Your task to perform on an android device: change keyboard looks Image 0: 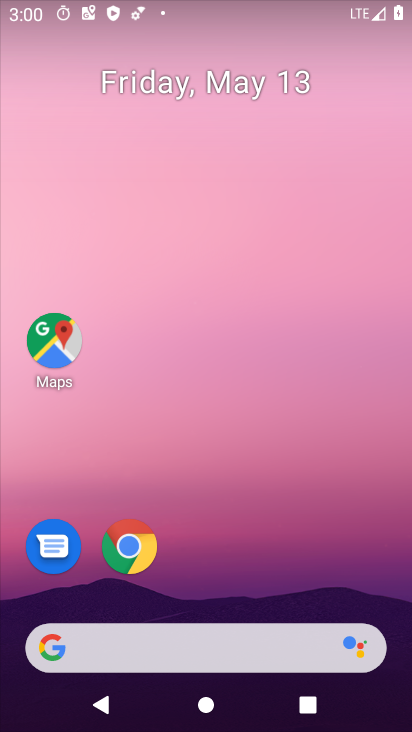
Step 0: drag from (243, 567) to (289, 37)
Your task to perform on an android device: change keyboard looks Image 1: 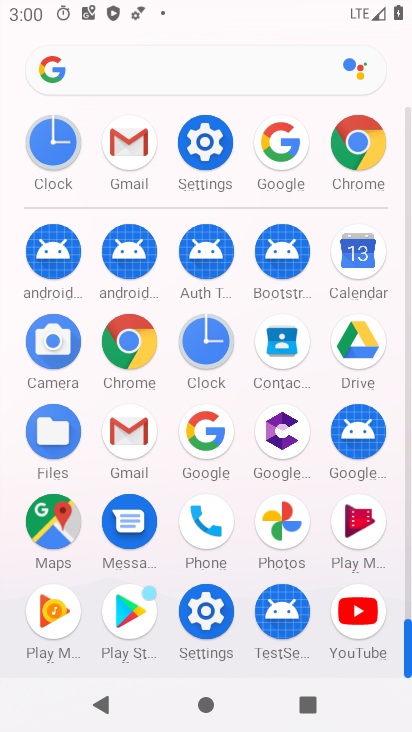
Step 1: click (210, 174)
Your task to perform on an android device: change keyboard looks Image 2: 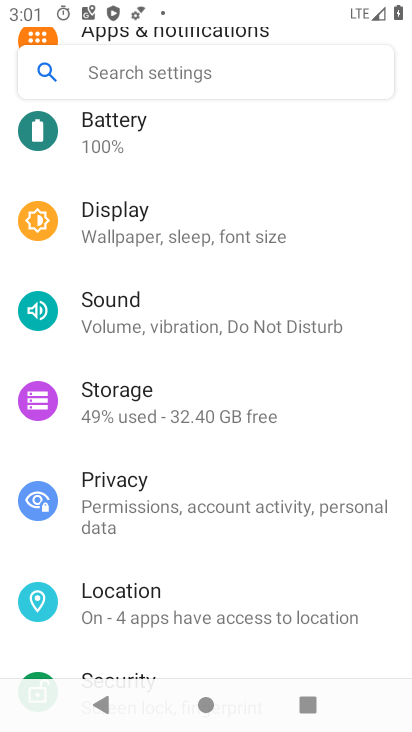
Step 2: drag from (224, 528) to (300, 185)
Your task to perform on an android device: change keyboard looks Image 3: 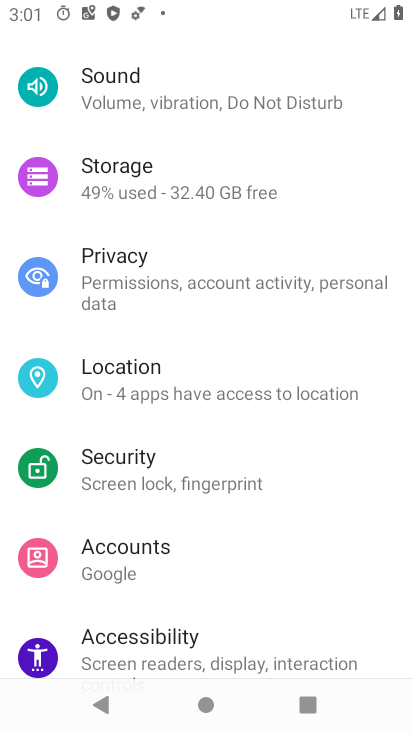
Step 3: drag from (231, 487) to (301, 247)
Your task to perform on an android device: change keyboard looks Image 4: 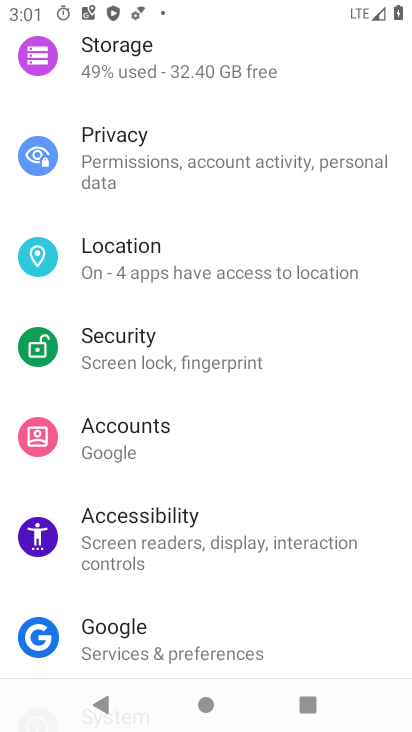
Step 4: drag from (184, 469) to (246, 221)
Your task to perform on an android device: change keyboard looks Image 5: 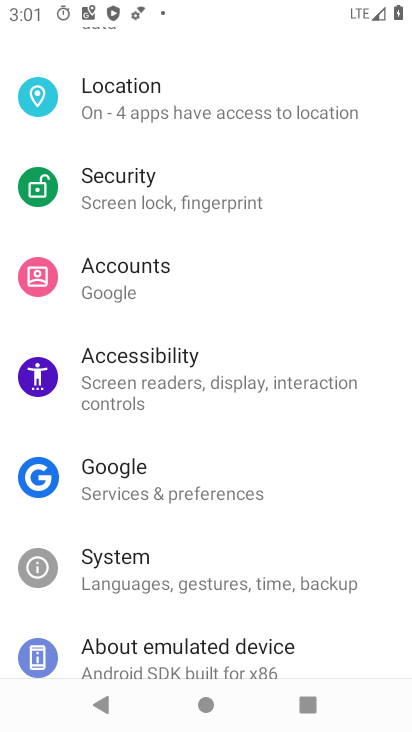
Step 5: click (167, 569)
Your task to perform on an android device: change keyboard looks Image 6: 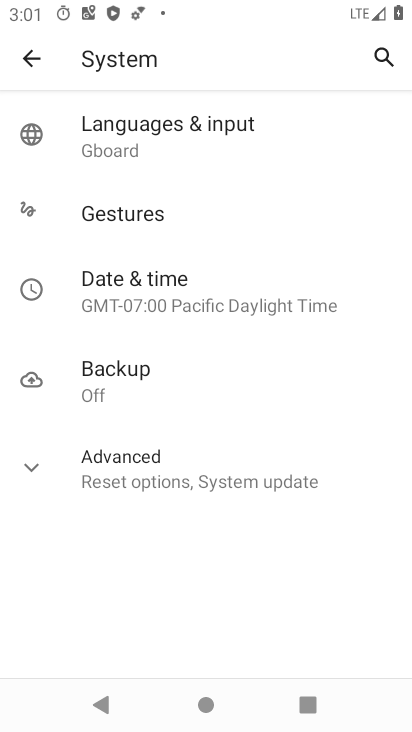
Step 6: click (181, 150)
Your task to perform on an android device: change keyboard looks Image 7: 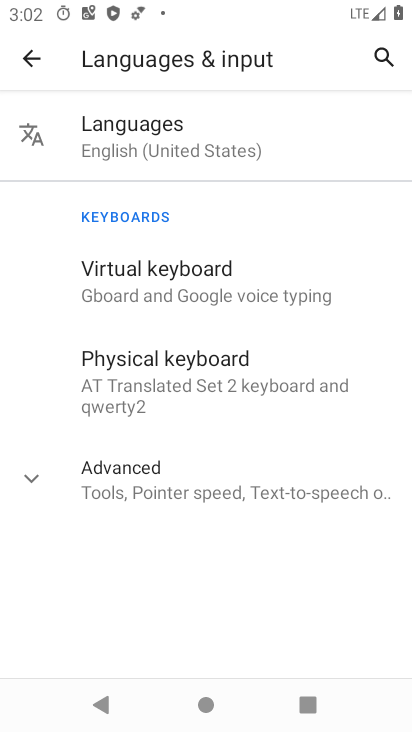
Step 7: click (160, 307)
Your task to perform on an android device: change keyboard looks Image 8: 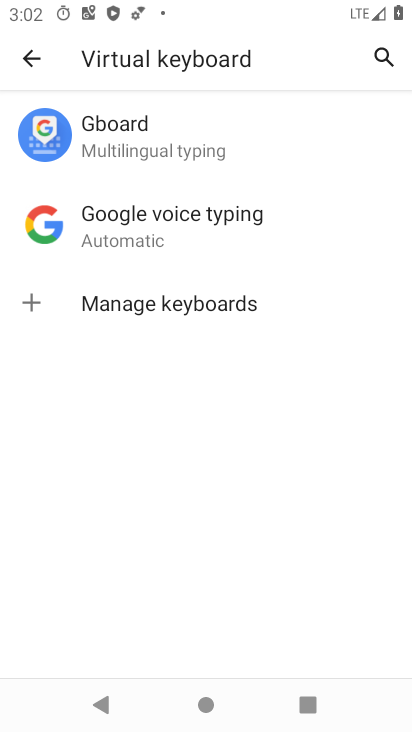
Step 8: click (178, 158)
Your task to perform on an android device: change keyboard looks Image 9: 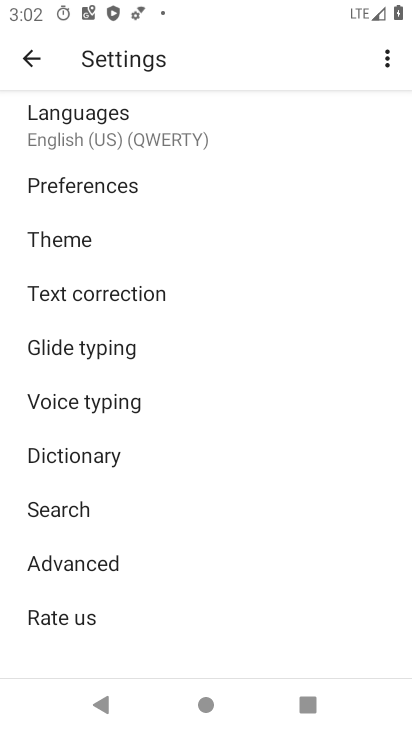
Step 9: click (113, 243)
Your task to perform on an android device: change keyboard looks Image 10: 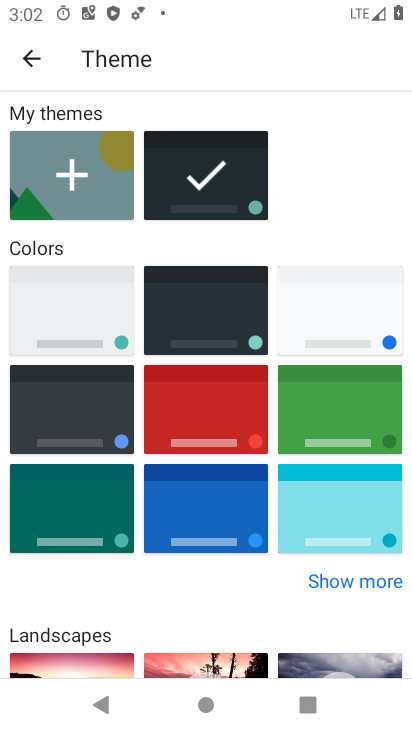
Step 10: click (129, 332)
Your task to perform on an android device: change keyboard looks Image 11: 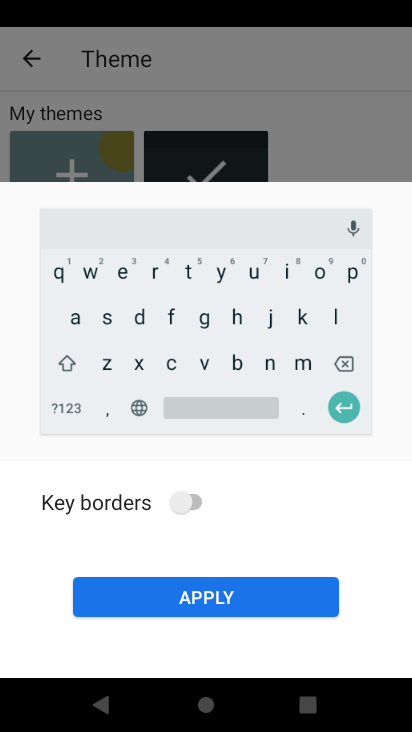
Step 11: click (184, 612)
Your task to perform on an android device: change keyboard looks Image 12: 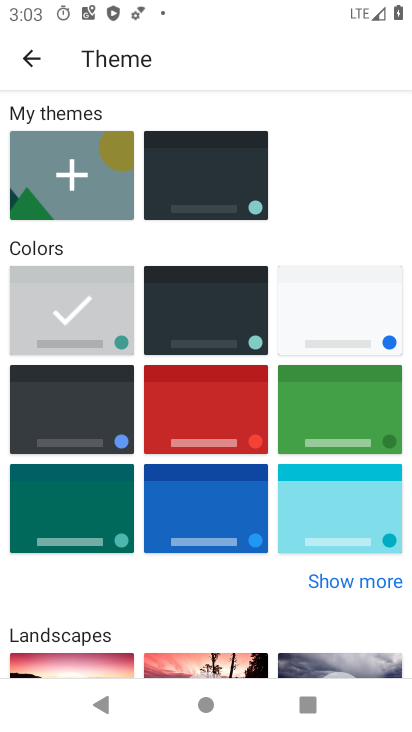
Step 12: task complete